Your task to perform on an android device: search for starred emails in the gmail app Image 0: 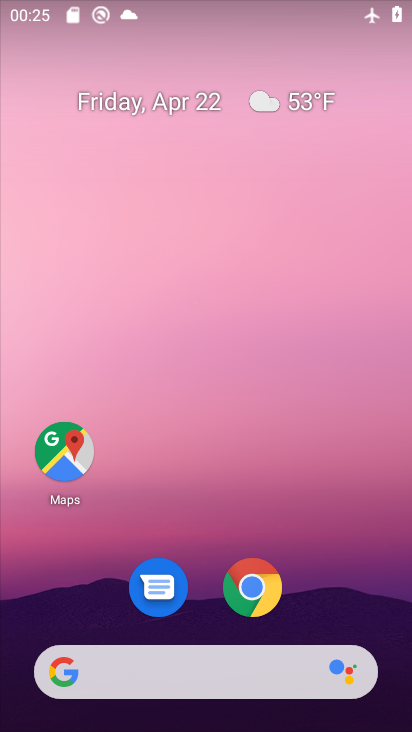
Step 0: drag from (315, 622) to (265, 229)
Your task to perform on an android device: search for starred emails in the gmail app Image 1: 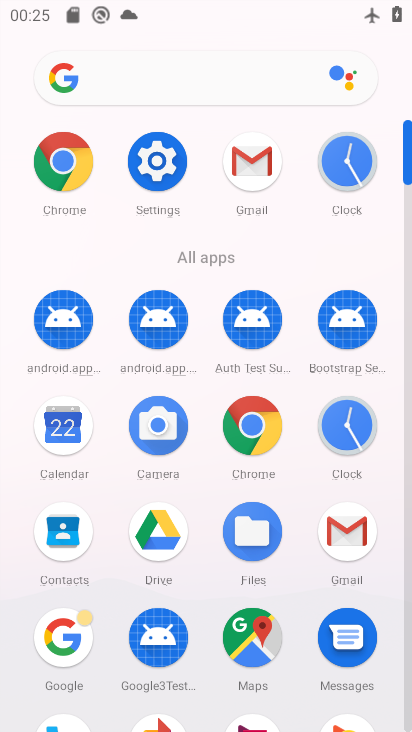
Step 1: click (246, 183)
Your task to perform on an android device: search for starred emails in the gmail app Image 2: 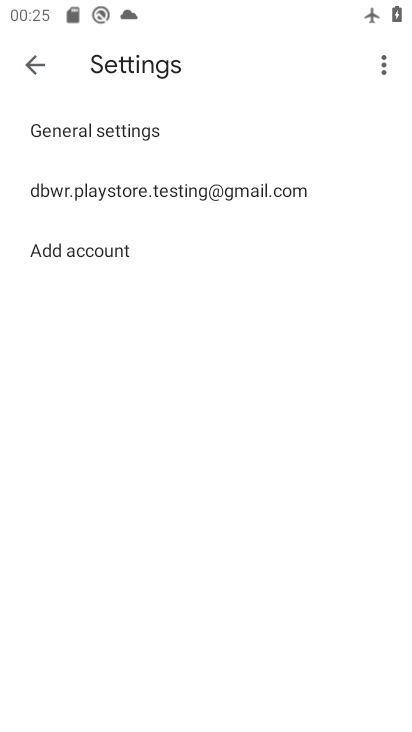
Step 2: press home button
Your task to perform on an android device: search for starred emails in the gmail app Image 3: 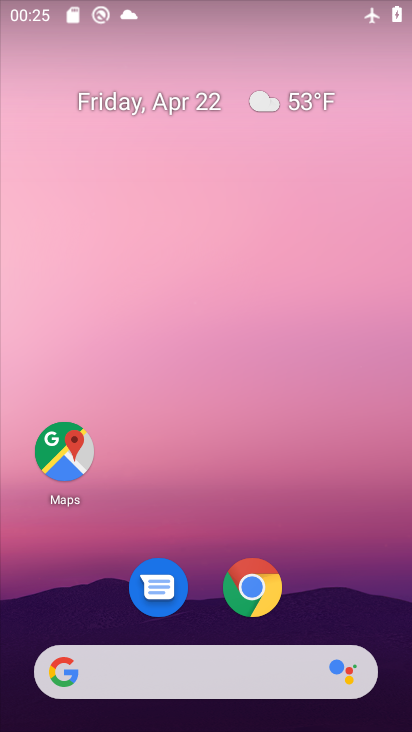
Step 3: drag from (210, 528) to (209, 195)
Your task to perform on an android device: search for starred emails in the gmail app Image 4: 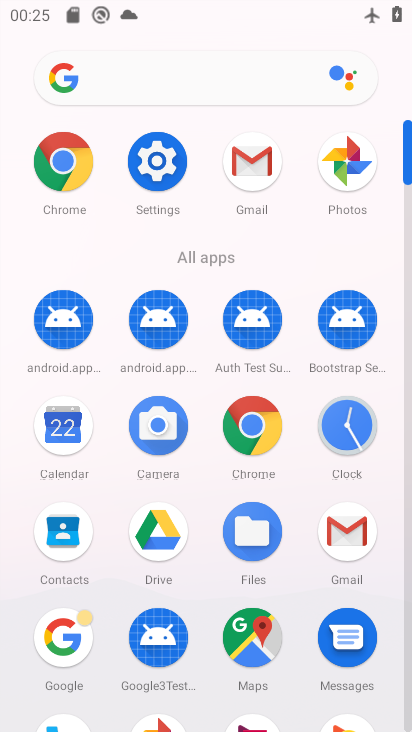
Step 4: click (346, 547)
Your task to perform on an android device: search for starred emails in the gmail app Image 5: 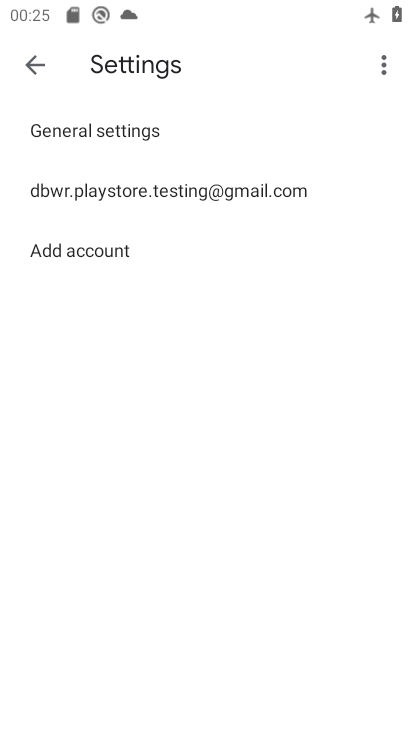
Step 5: press back button
Your task to perform on an android device: search for starred emails in the gmail app Image 6: 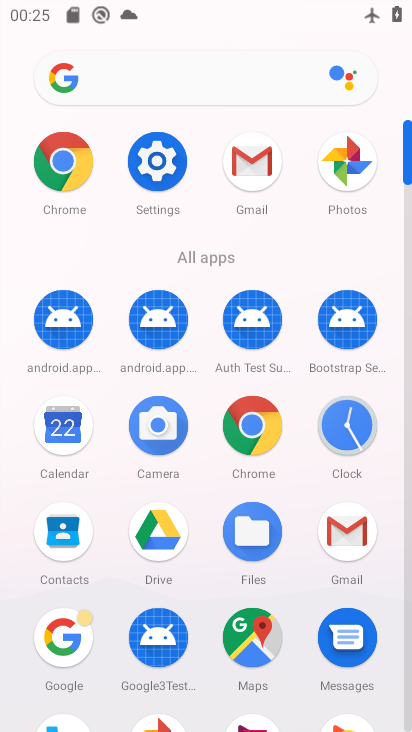
Step 6: click (359, 533)
Your task to perform on an android device: search for starred emails in the gmail app Image 7: 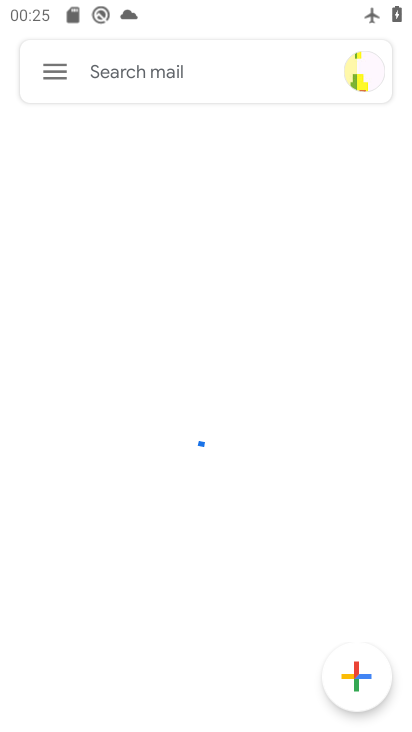
Step 7: click (63, 72)
Your task to perform on an android device: search for starred emails in the gmail app Image 8: 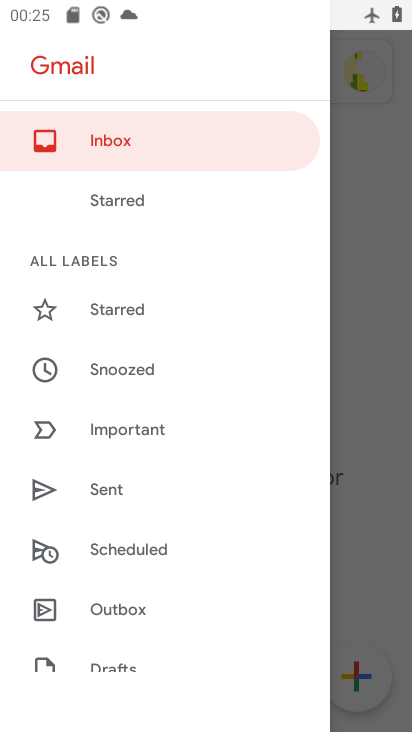
Step 8: click (140, 322)
Your task to perform on an android device: search for starred emails in the gmail app Image 9: 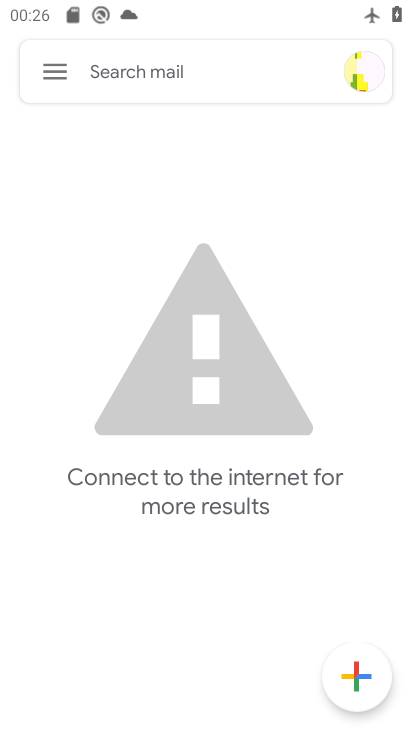
Step 9: task complete